Your task to perform on an android device: turn off wifi Image 0: 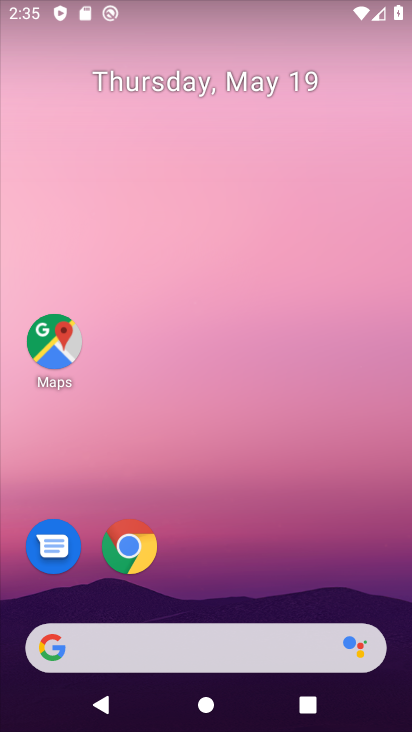
Step 0: press home button
Your task to perform on an android device: turn off wifi Image 1: 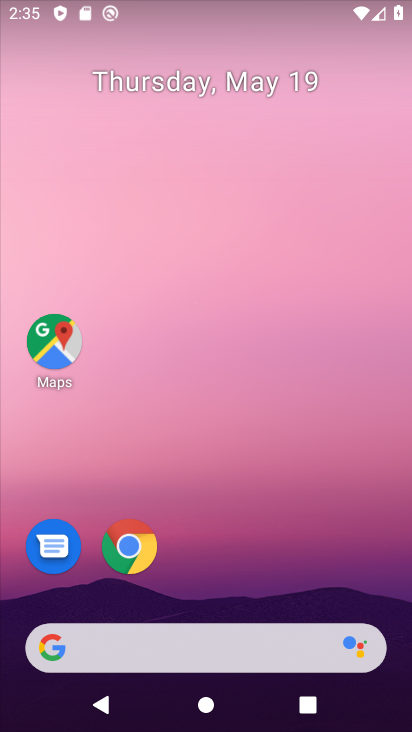
Step 1: drag from (189, 655) to (293, 150)
Your task to perform on an android device: turn off wifi Image 2: 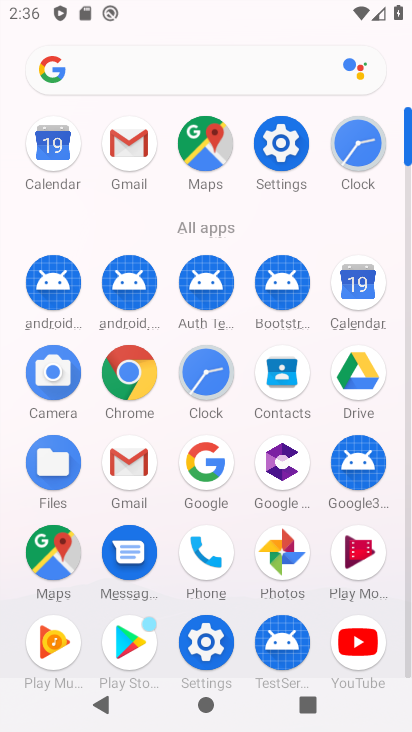
Step 2: click (276, 159)
Your task to perform on an android device: turn off wifi Image 3: 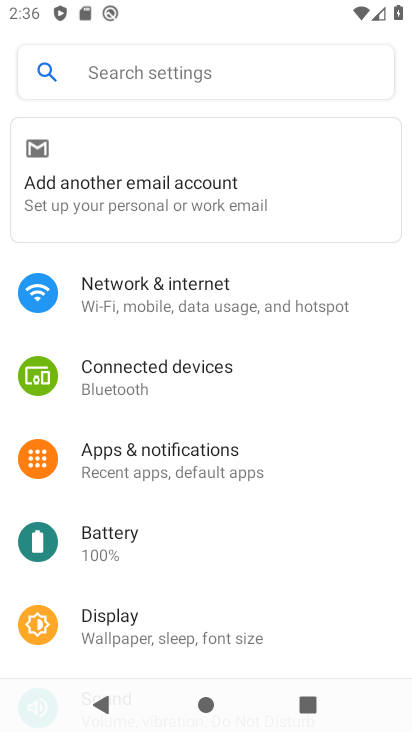
Step 3: click (194, 283)
Your task to perform on an android device: turn off wifi Image 4: 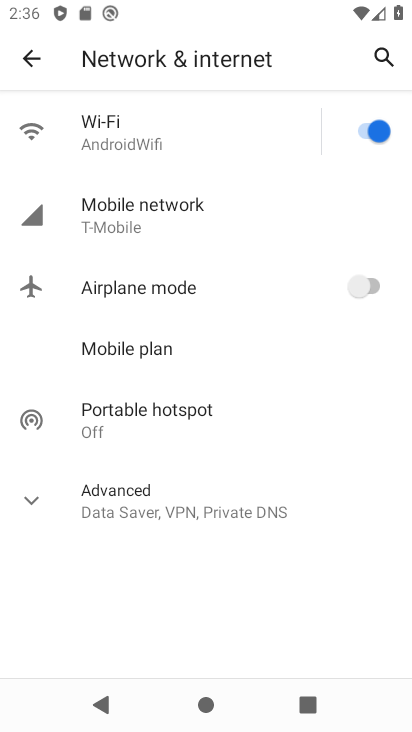
Step 4: click (360, 129)
Your task to perform on an android device: turn off wifi Image 5: 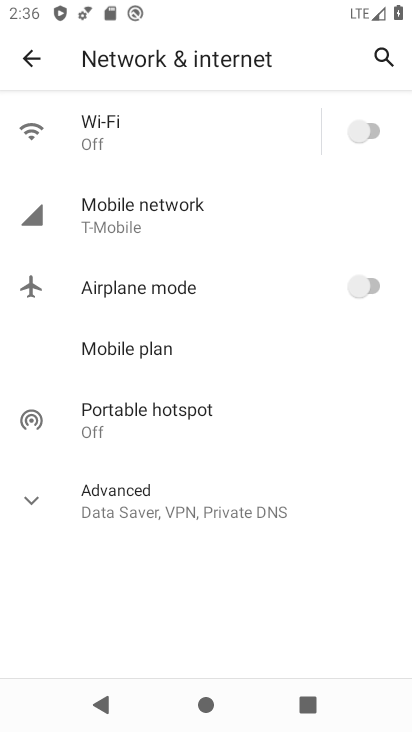
Step 5: task complete